Your task to perform on an android device: open app "Facebook Messenger" Image 0: 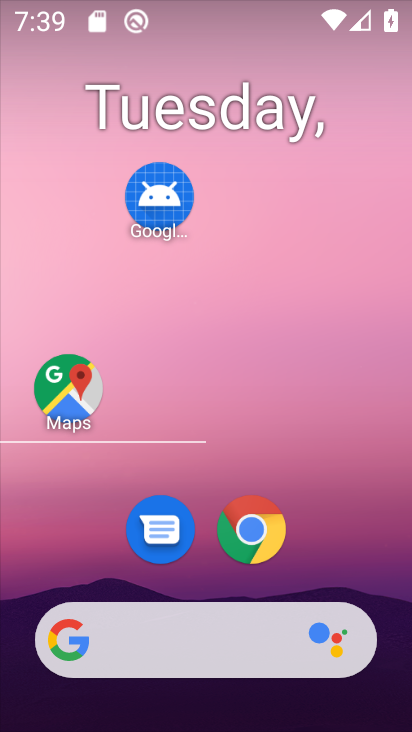
Step 0: press home button
Your task to perform on an android device: open app "Facebook Messenger" Image 1: 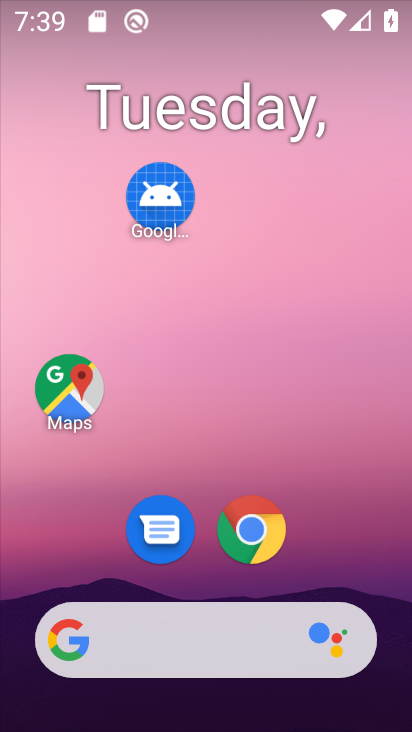
Step 1: drag from (316, 563) to (355, 48)
Your task to perform on an android device: open app "Facebook Messenger" Image 2: 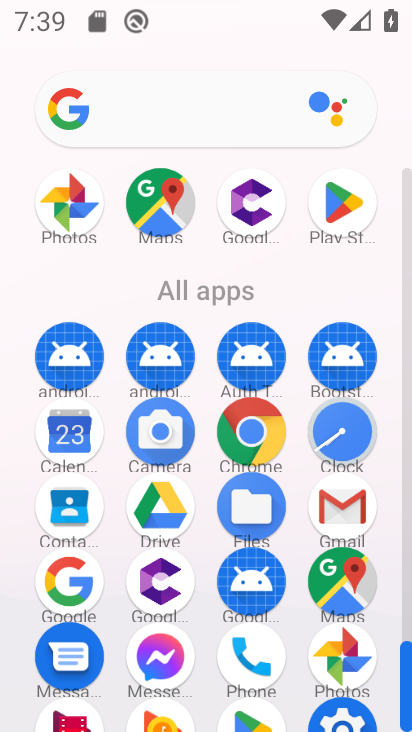
Step 2: click (339, 197)
Your task to perform on an android device: open app "Facebook Messenger" Image 3: 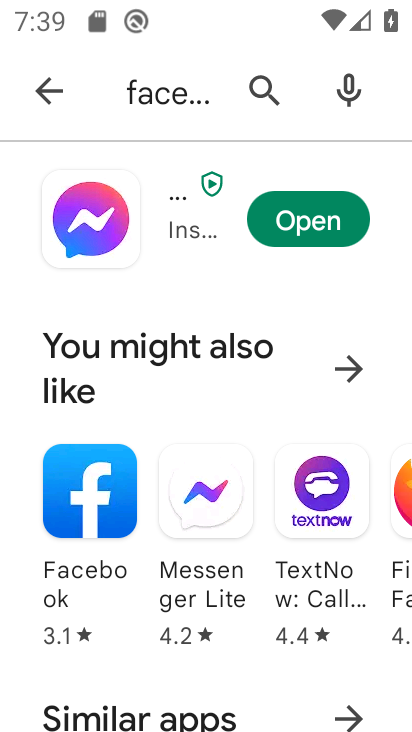
Step 3: click (255, 93)
Your task to perform on an android device: open app "Facebook Messenger" Image 4: 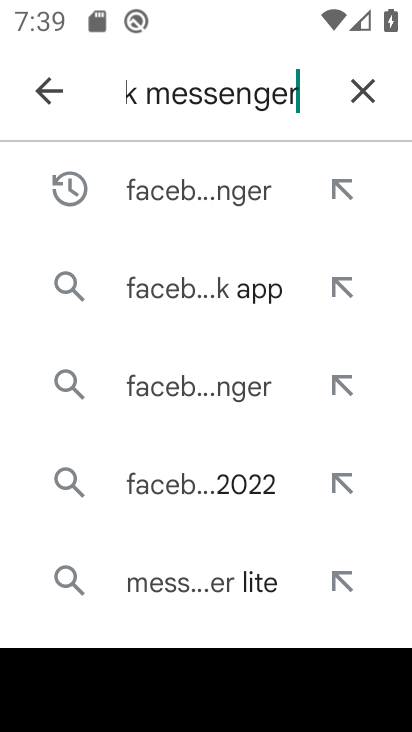
Step 4: click (187, 183)
Your task to perform on an android device: open app "Facebook Messenger" Image 5: 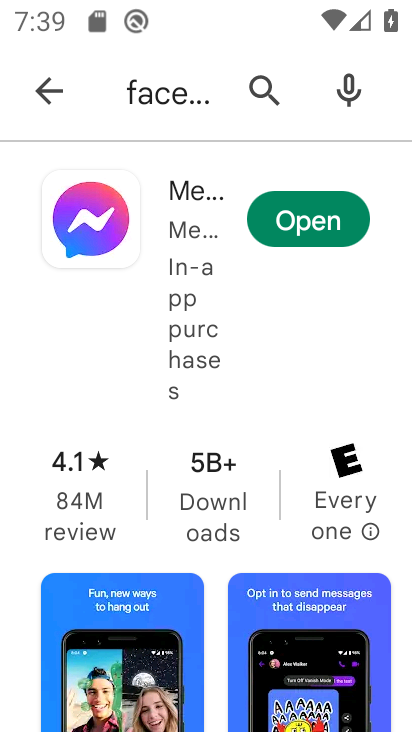
Step 5: click (325, 229)
Your task to perform on an android device: open app "Facebook Messenger" Image 6: 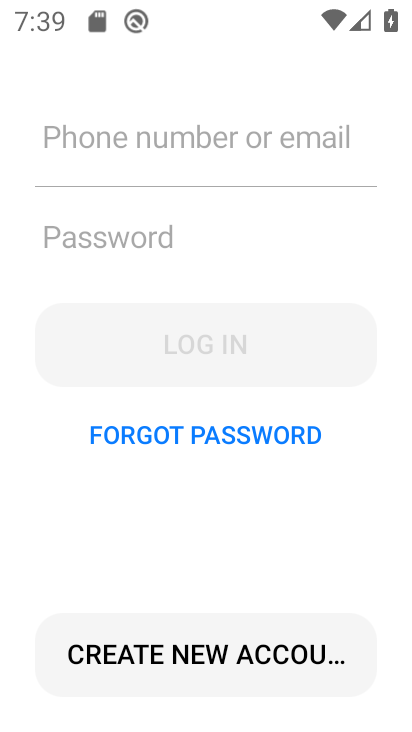
Step 6: task complete